Your task to perform on an android device: Check the settings for the Instagram app Image 0: 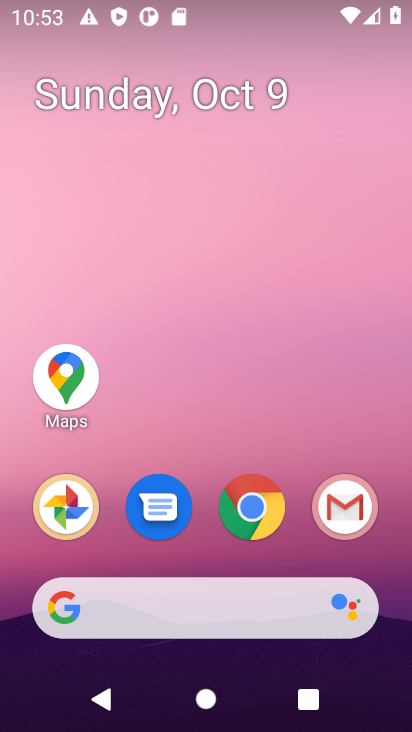
Step 0: drag from (367, 477) to (341, 88)
Your task to perform on an android device: Check the settings for the Instagram app Image 1: 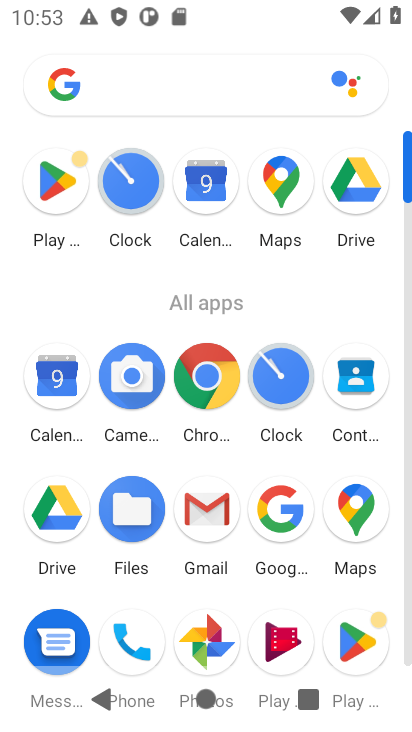
Step 1: drag from (373, 210) to (373, 86)
Your task to perform on an android device: Check the settings for the Instagram app Image 2: 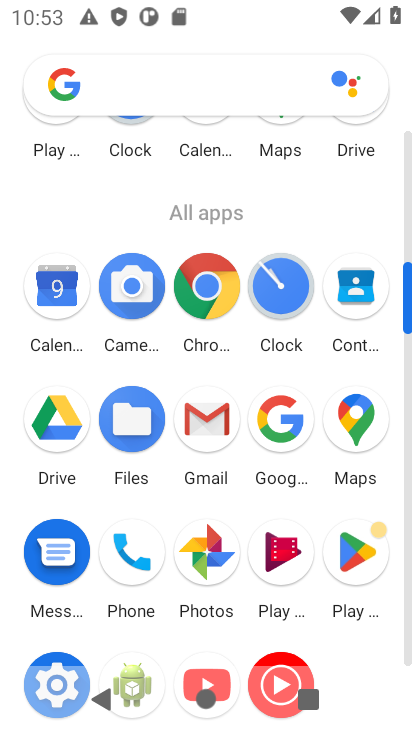
Step 2: drag from (366, 639) to (349, 295)
Your task to perform on an android device: Check the settings for the Instagram app Image 3: 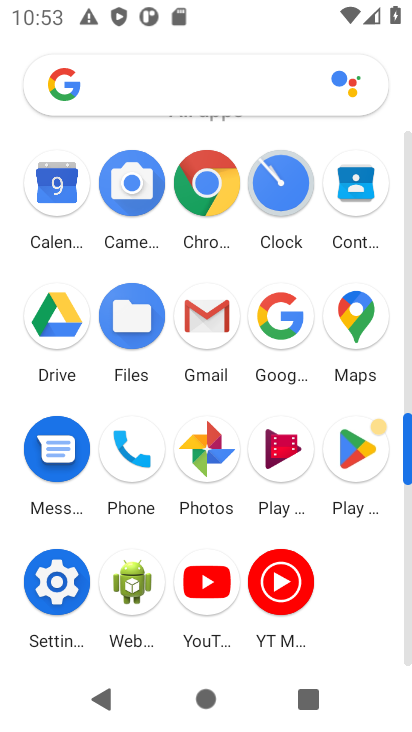
Step 3: click (349, 454)
Your task to perform on an android device: Check the settings for the Instagram app Image 4: 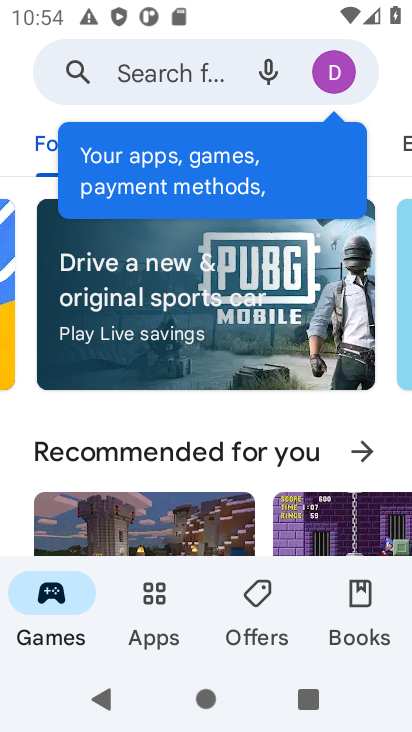
Step 4: click (162, 77)
Your task to perform on an android device: Check the settings for the Instagram app Image 5: 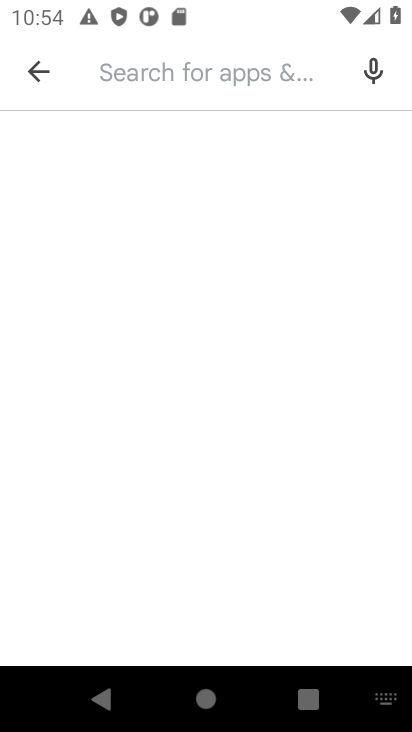
Step 5: press enter
Your task to perform on an android device: Check the settings for the Instagram app Image 6: 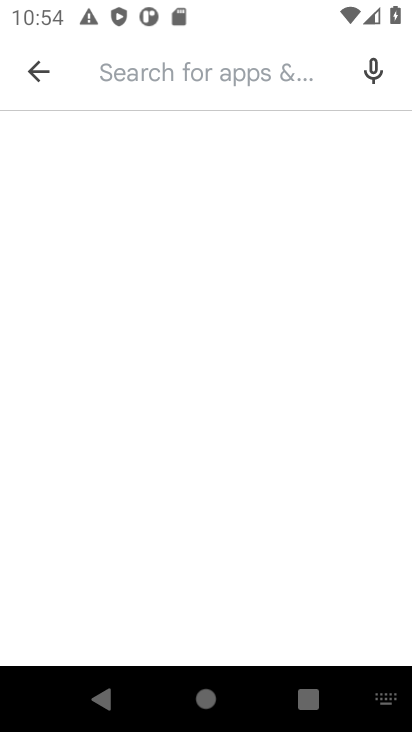
Step 6: type "instagram app"
Your task to perform on an android device: Check the settings for the Instagram app Image 7: 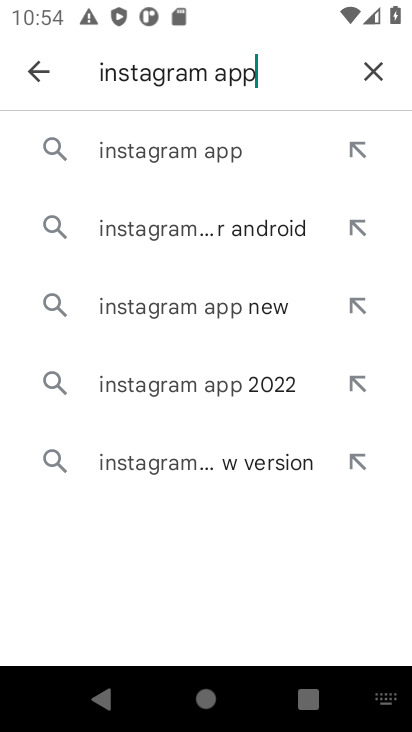
Step 7: press enter
Your task to perform on an android device: Check the settings for the Instagram app Image 8: 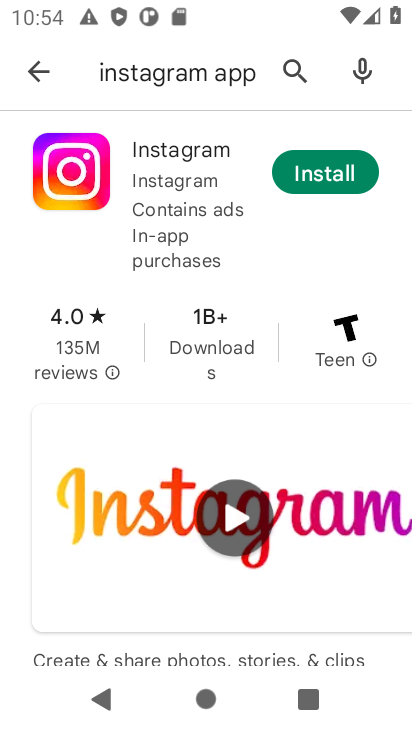
Step 8: task complete